Your task to perform on an android device: delete location history Image 0: 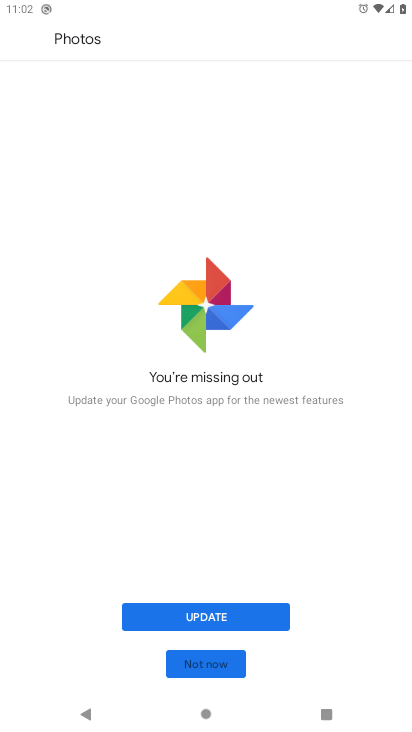
Step 0: press home button
Your task to perform on an android device: delete location history Image 1: 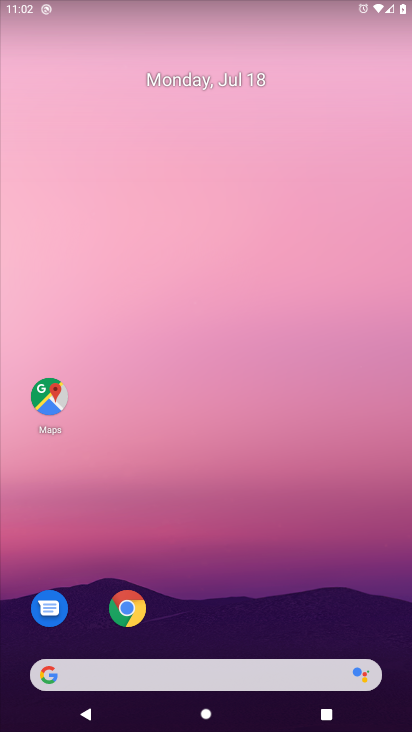
Step 1: drag from (26, 698) to (186, 44)
Your task to perform on an android device: delete location history Image 2: 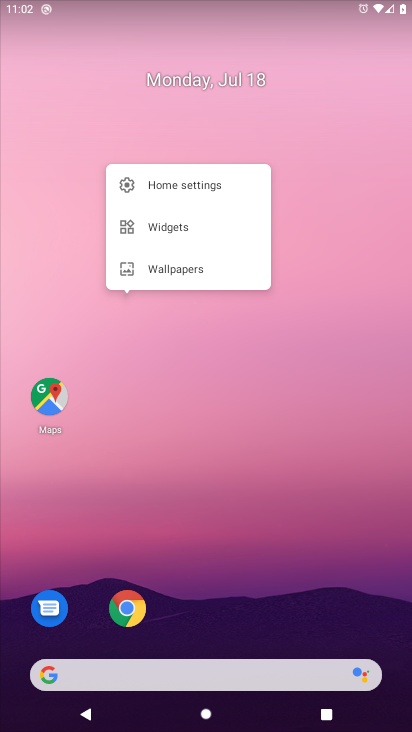
Step 2: drag from (58, 716) to (203, 11)
Your task to perform on an android device: delete location history Image 3: 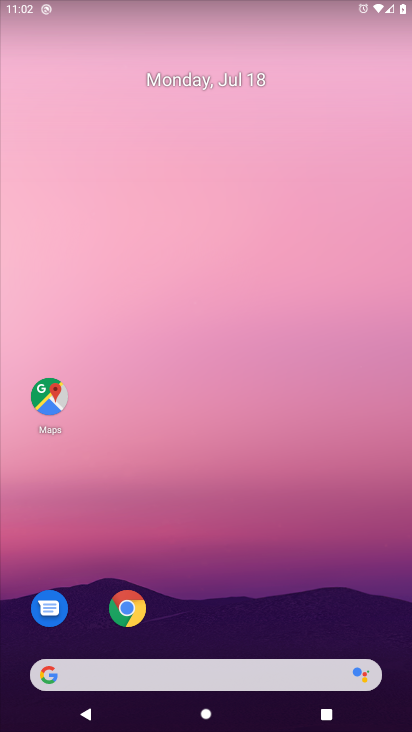
Step 3: drag from (25, 694) to (159, 51)
Your task to perform on an android device: delete location history Image 4: 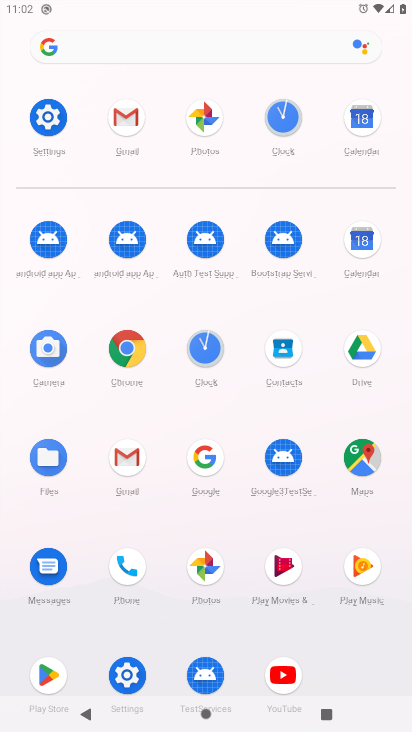
Step 4: click (133, 655)
Your task to perform on an android device: delete location history Image 5: 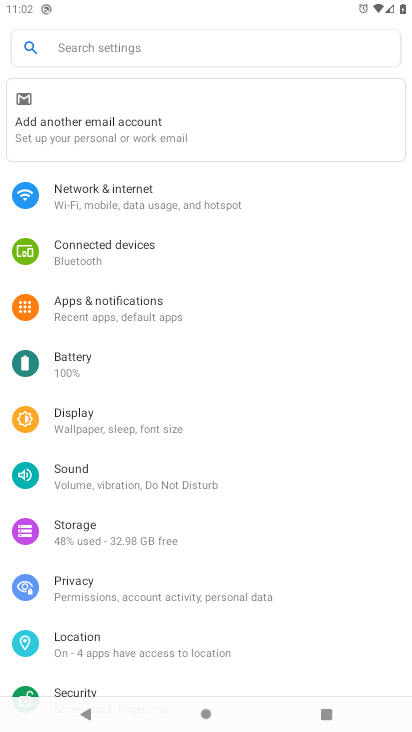
Step 5: click (132, 645)
Your task to perform on an android device: delete location history Image 6: 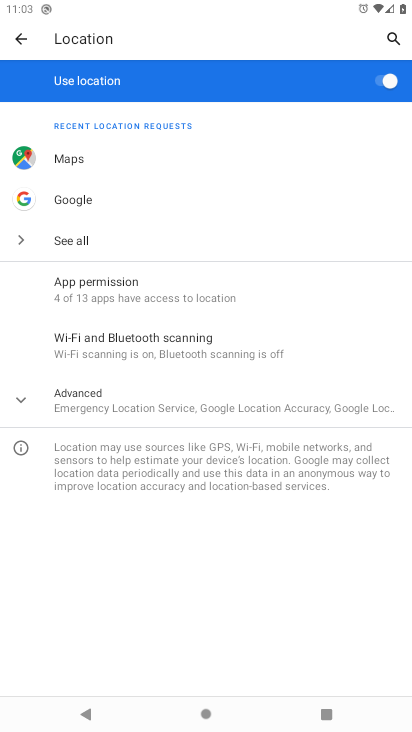
Step 6: click (121, 398)
Your task to perform on an android device: delete location history Image 7: 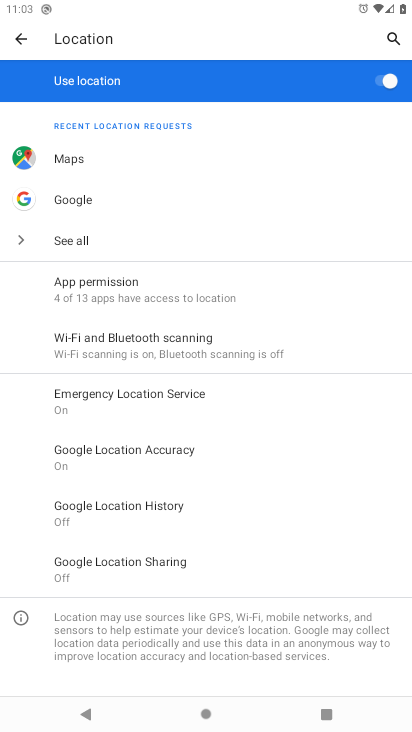
Step 7: click (158, 510)
Your task to perform on an android device: delete location history Image 8: 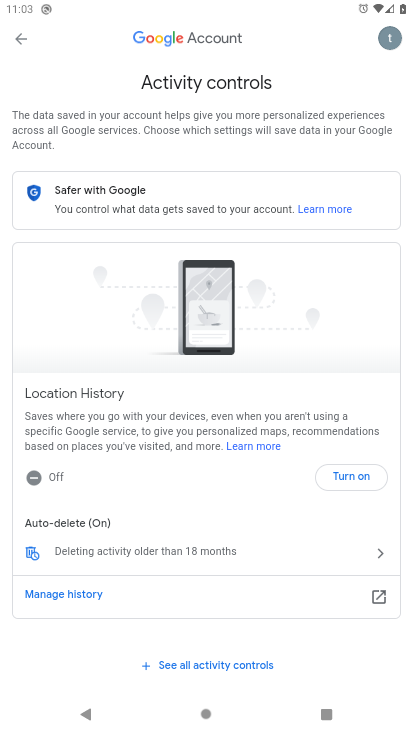
Step 8: drag from (192, 550) to (205, 310)
Your task to perform on an android device: delete location history Image 9: 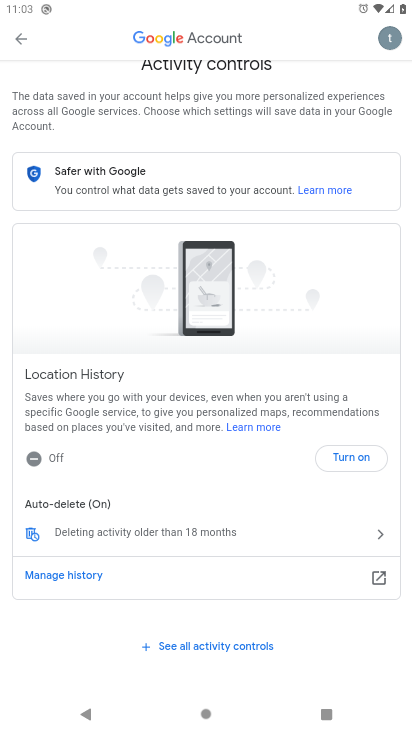
Step 9: click (329, 581)
Your task to perform on an android device: delete location history Image 10: 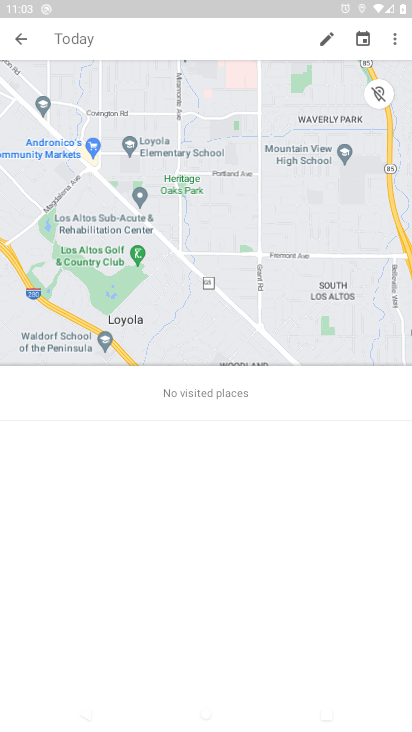
Step 10: task complete